Your task to perform on an android device: What's a good restaurant in Houston? Image 0: 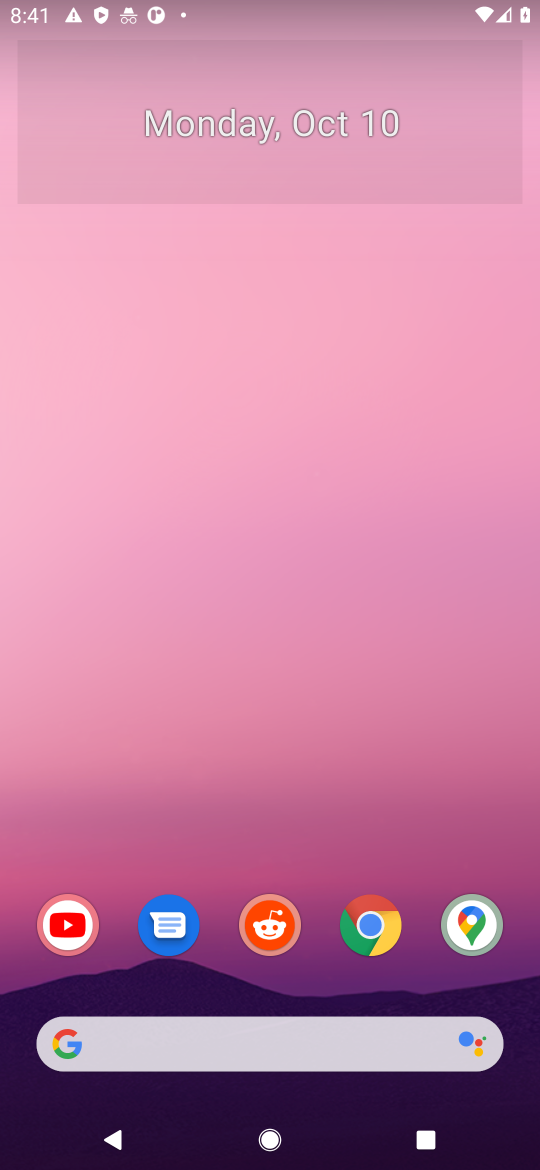
Step 0: drag from (333, 925) to (485, 89)
Your task to perform on an android device: What's a good restaurant in Houston? Image 1: 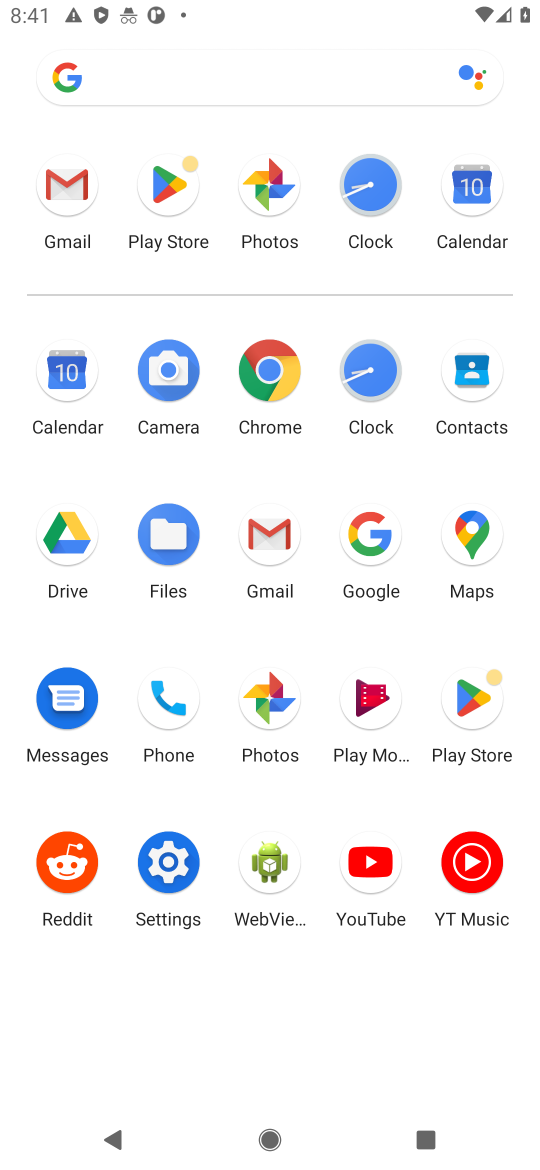
Step 1: click (274, 385)
Your task to perform on an android device: What's a good restaurant in Houston? Image 2: 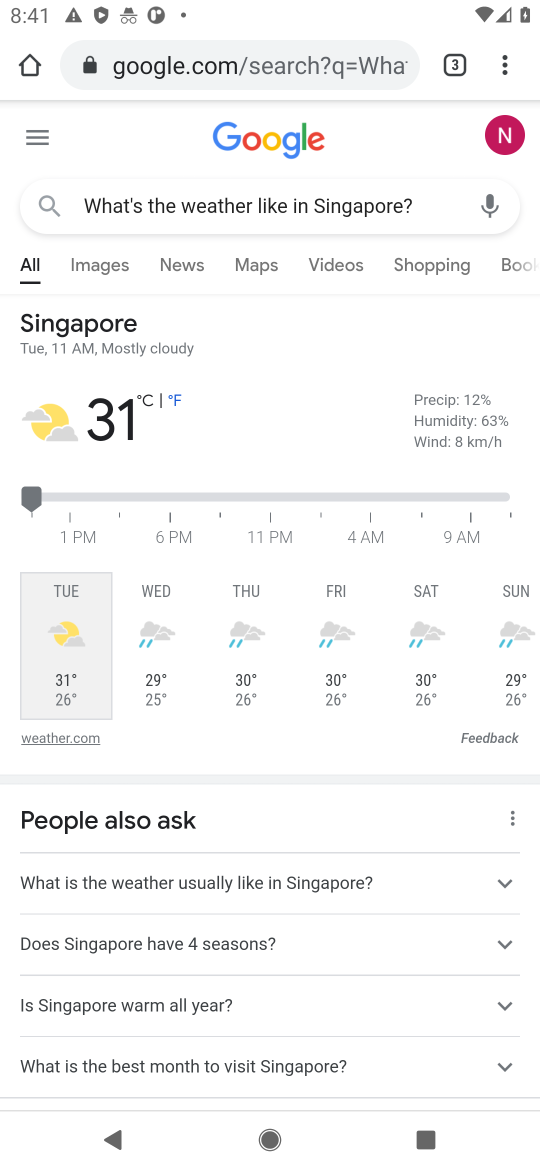
Step 2: click (306, 65)
Your task to perform on an android device: What's a good restaurant in Houston? Image 3: 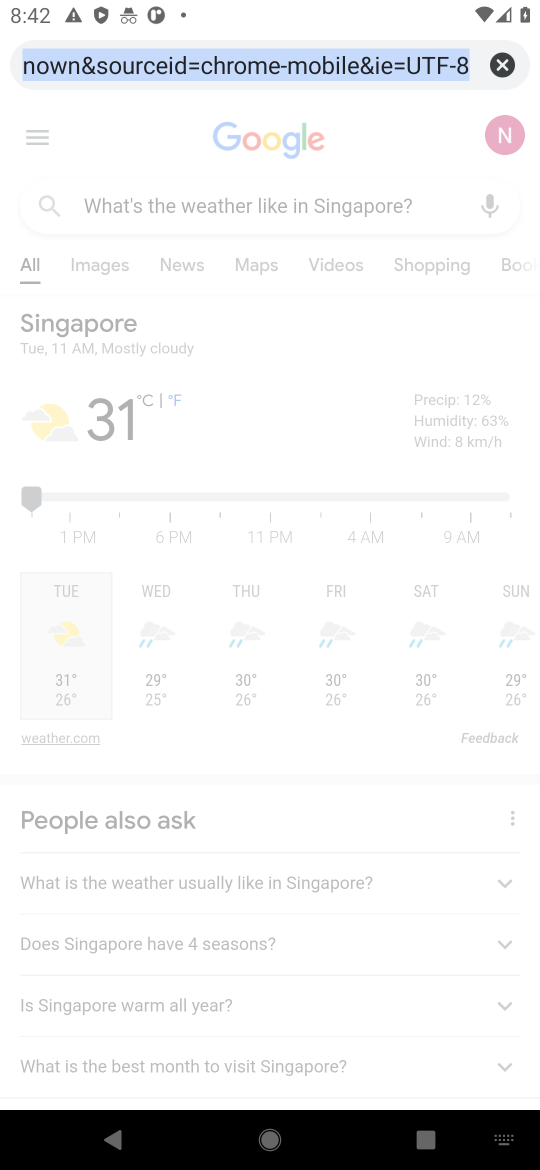
Step 3: type "What's a good restaurant in Houston?"
Your task to perform on an android device: What's a good restaurant in Houston? Image 4: 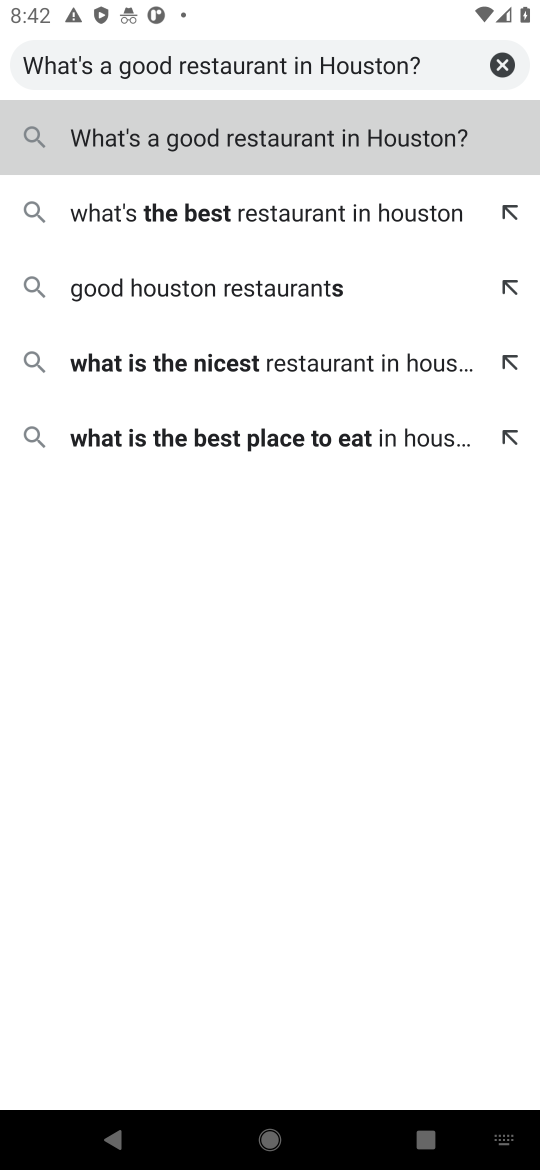
Step 4: press enter
Your task to perform on an android device: What's a good restaurant in Houston? Image 5: 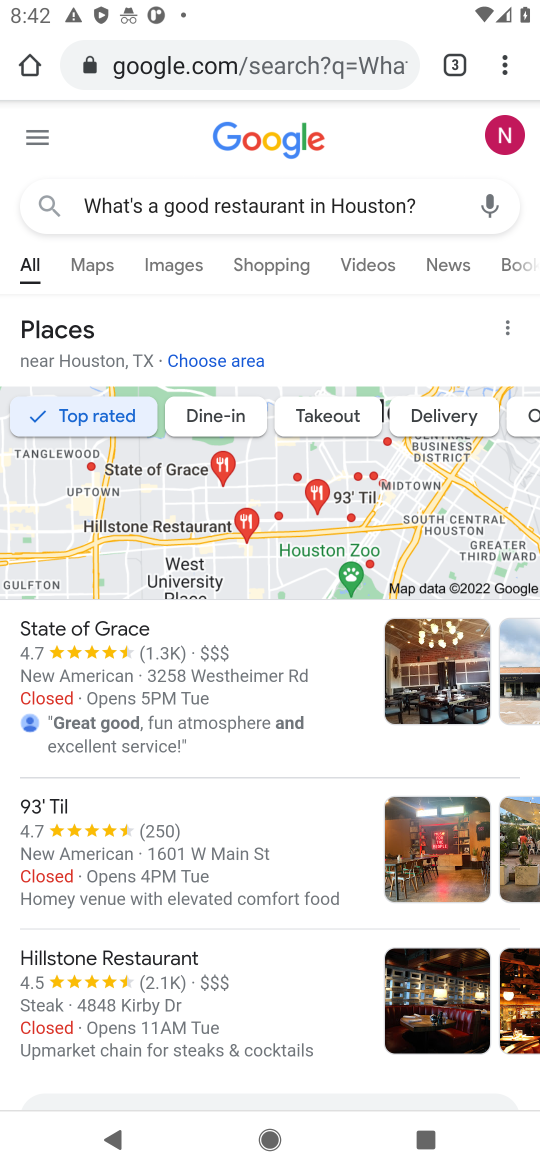
Step 5: task complete